Your task to perform on an android device: find snoozed emails in the gmail app Image 0: 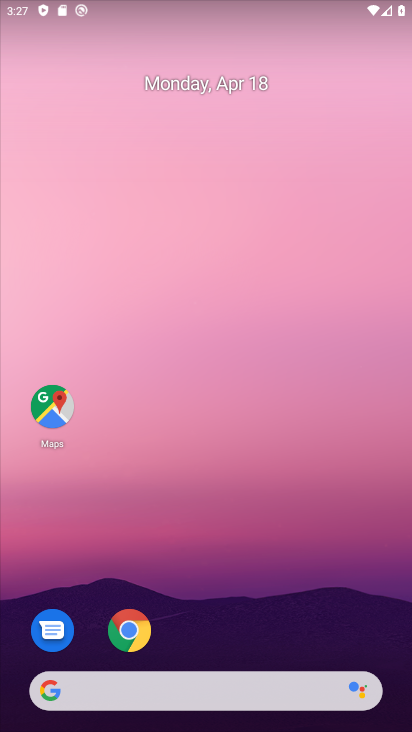
Step 0: drag from (151, 667) to (255, 40)
Your task to perform on an android device: find snoozed emails in the gmail app Image 1: 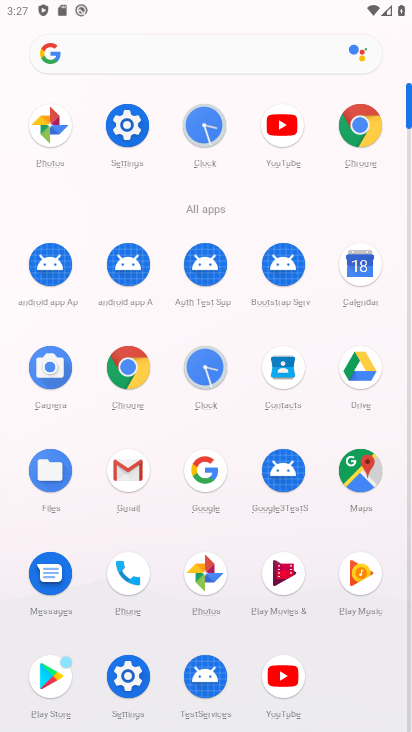
Step 1: click (135, 478)
Your task to perform on an android device: find snoozed emails in the gmail app Image 2: 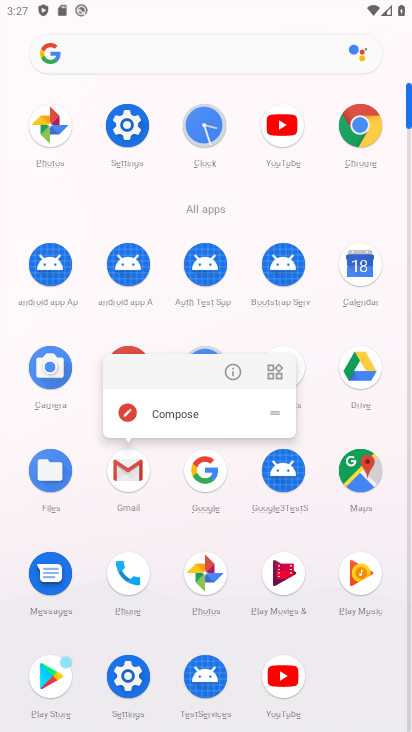
Step 2: click (135, 478)
Your task to perform on an android device: find snoozed emails in the gmail app Image 3: 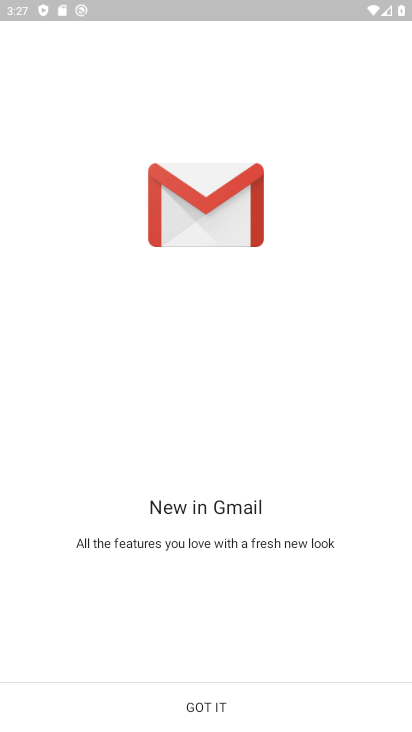
Step 3: click (178, 690)
Your task to perform on an android device: find snoozed emails in the gmail app Image 4: 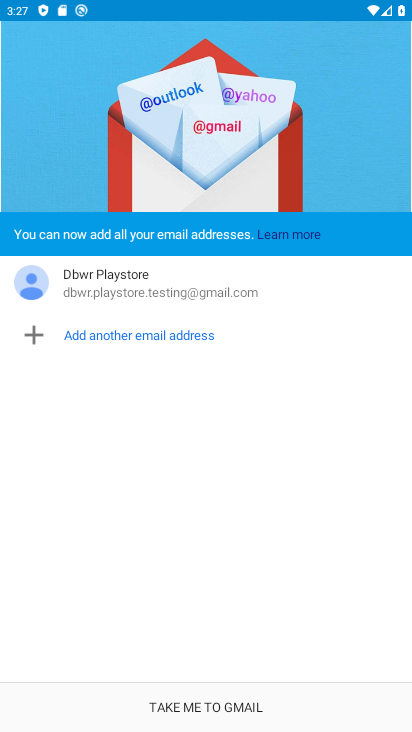
Step 4: click (205, 691)
Your task to perform on an android device: find snoozed emails in the gmail app Image 5: 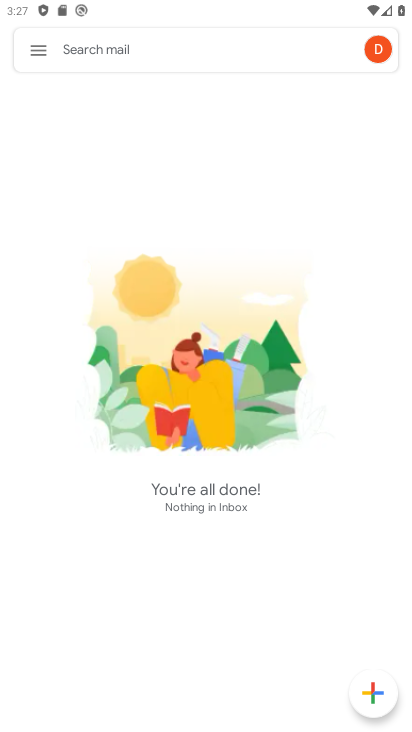
Step 5: click (43, 53)
Your task to perform on an android device: find snoozed emails in the gmail app Image 6: 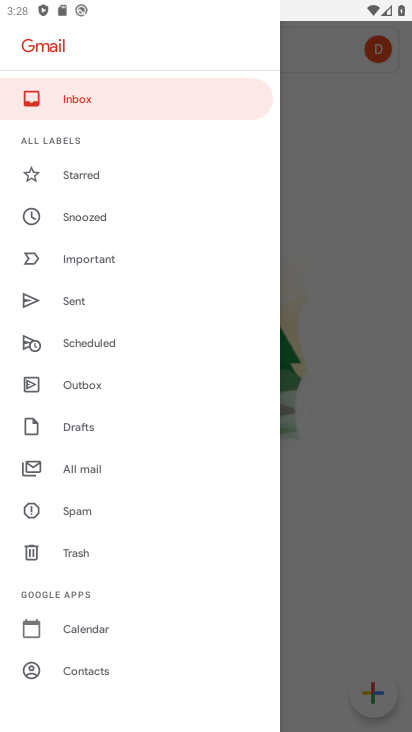
Step 6: click (128, 215)
Your task to perform on an android device: find snoozed emails in the gmail app Image 7: 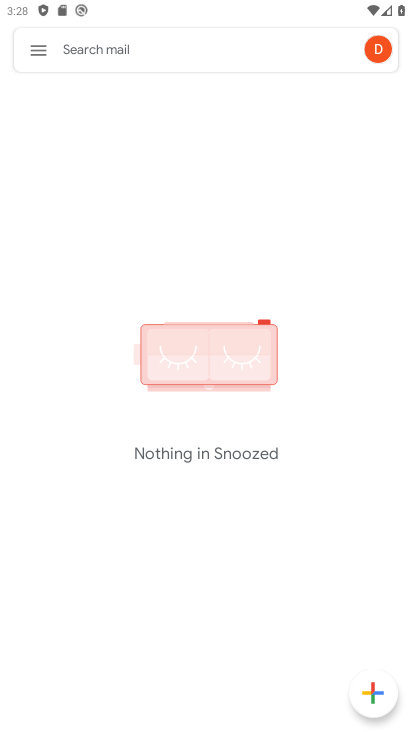
Step 7: task complete